Your task to perform on an android device: Open Yahoo.com Image 0: 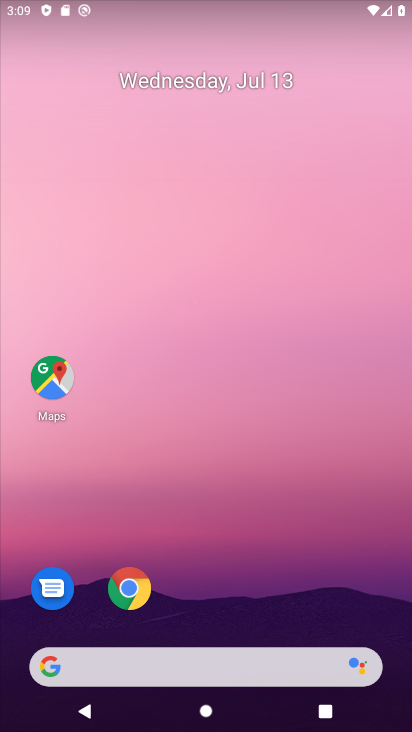
Step 0: drag from (270, 674) to (222, 50)
Your task to perform on an android device: Open Yahoo.com Image 1: 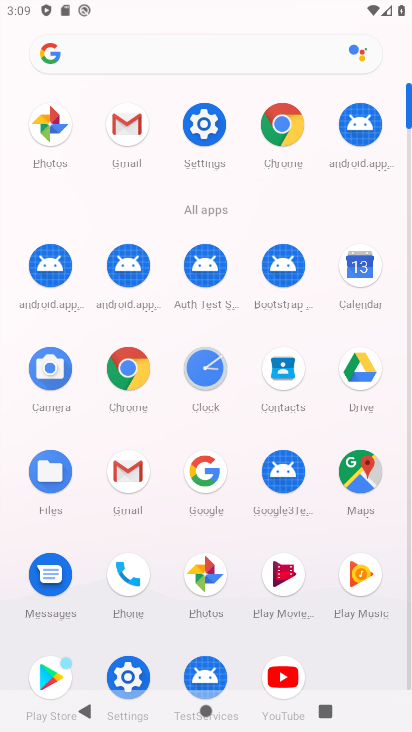
Step 1: click (270, 111)
Your task to perform on an android device: Open Yahoo.com Image 2: 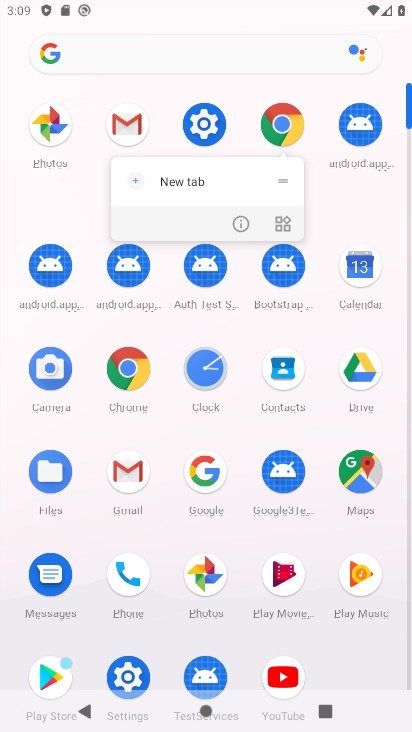
Step 2: click (279, 114)
Your task to perform on an android device: Open Yahoo.com Image 3: 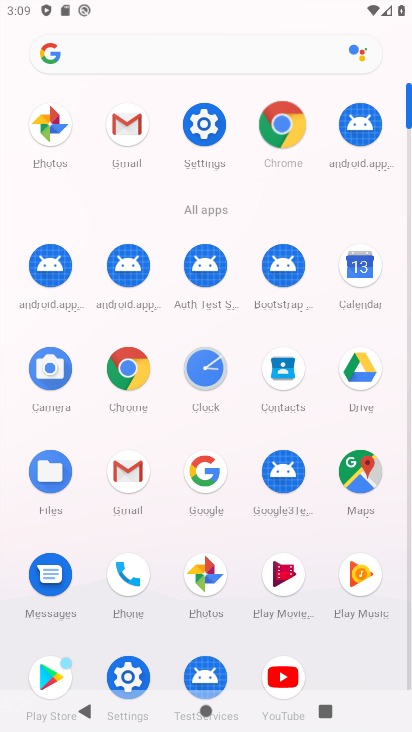
Step 3: click (279, 114)
Your task to perform on an android device: Open Yahoo.com Image 4: 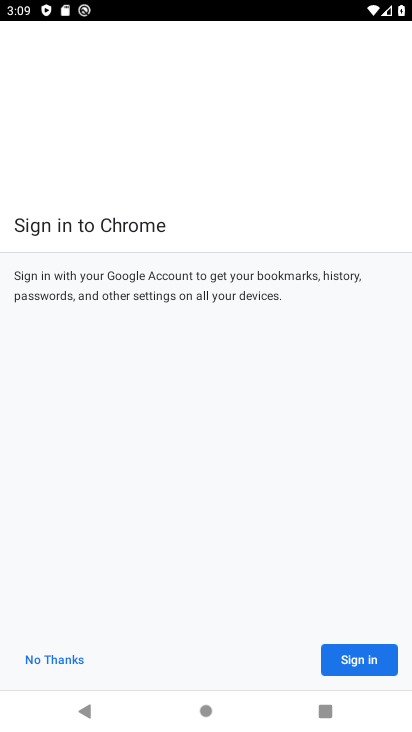
Step 4: click (69, 659)
Your task to perform on an android device: Open Yahoo.com Image 5: 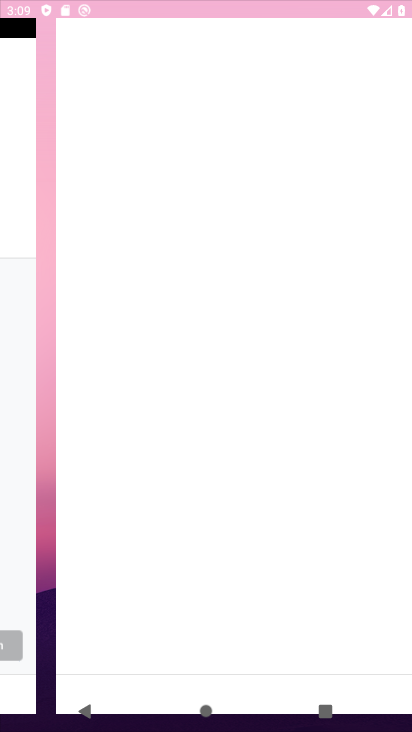
Step 5: click (56, 647)
Your task to perform on an android device: Open Yahoo.com Image 6: 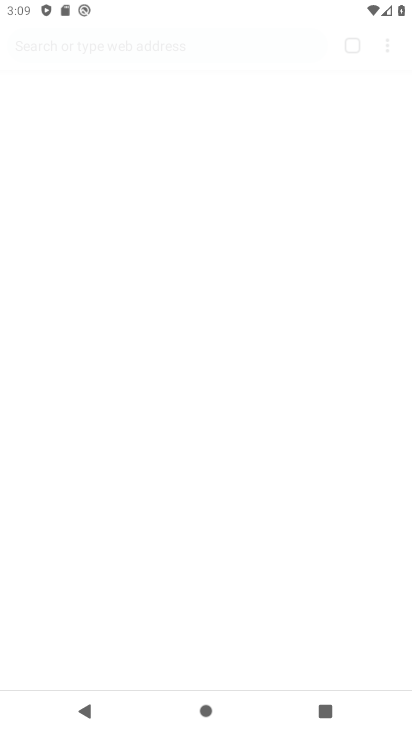
Step 6: click (55, 646)
Your task to perform on an android device: Open Yahoo.com Image 7: 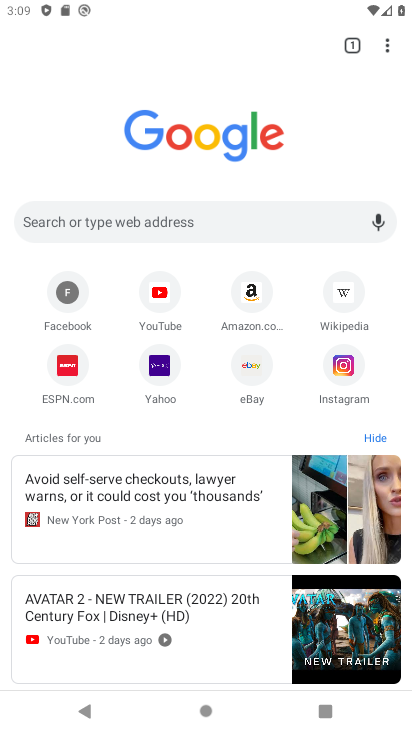
Step 7: click (158, 373)
Your task to perform on an android device: Open Yahoo.com Image 8: 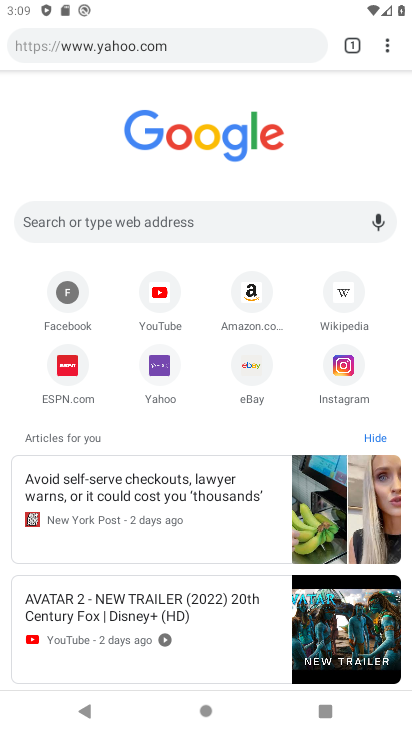
Step 8: click (160, 369)
Your task to perform on an android device: Open Yahoo.com Image 9: 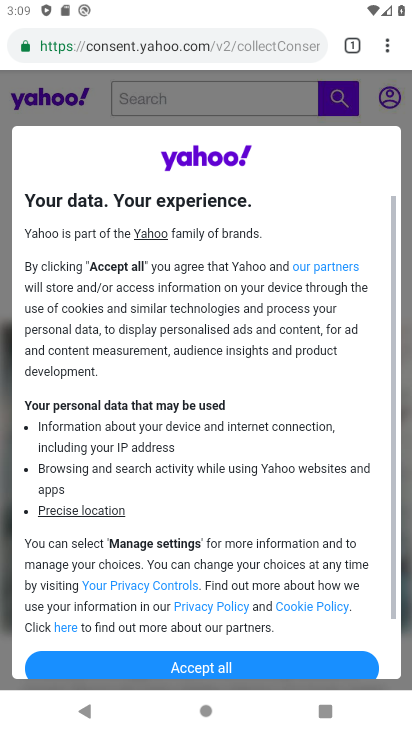
Step 9: task complete